Your task to perform on an android device: Go to wifi settings Image 0: 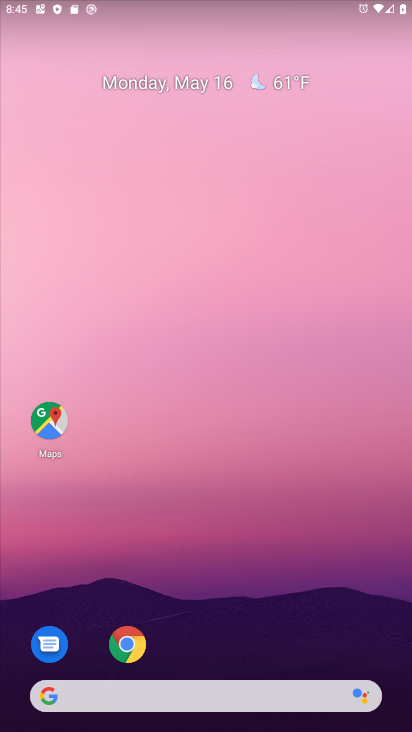
Step 0: drag from (239, 622) to (261, 152)
Your task to perform on an android device: Go to wifi settings Image 1: 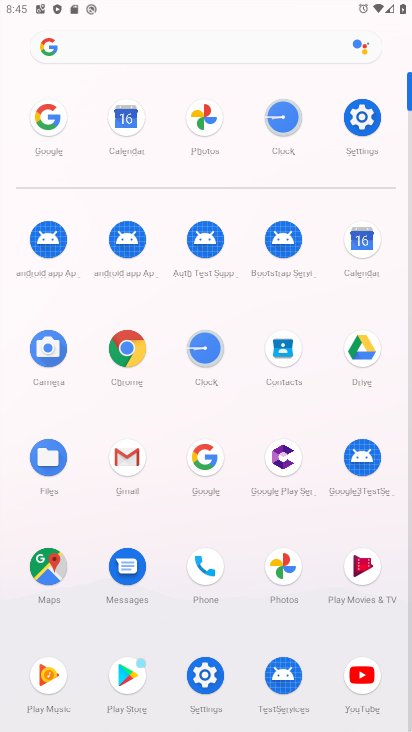
Step 1: click (361, 118)
Your task to perform on an android device: Go to wifi settings Image 2: 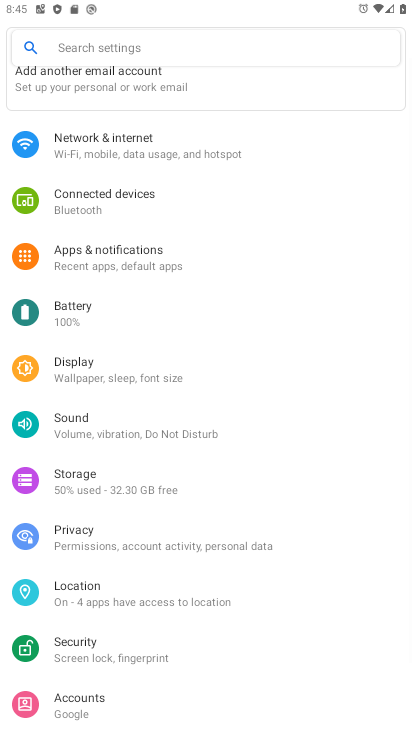
Step 2: click (82, 159)
Your task to perform on an android device: Go to wifi settings Image 3: 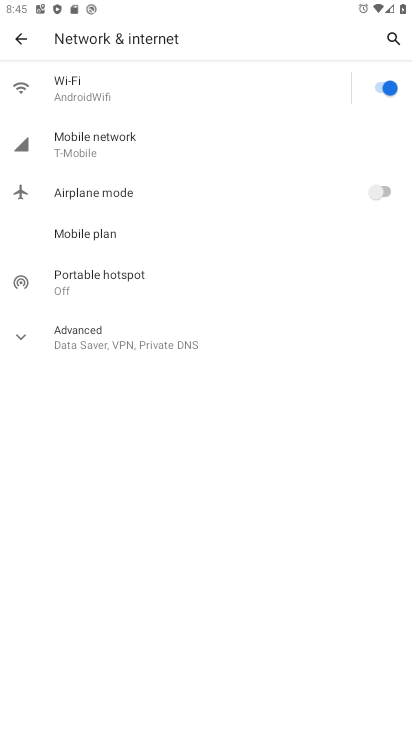
Step 3: click (123, 97)
Your task to perform on an android device: Go to wifi settings Image 4: 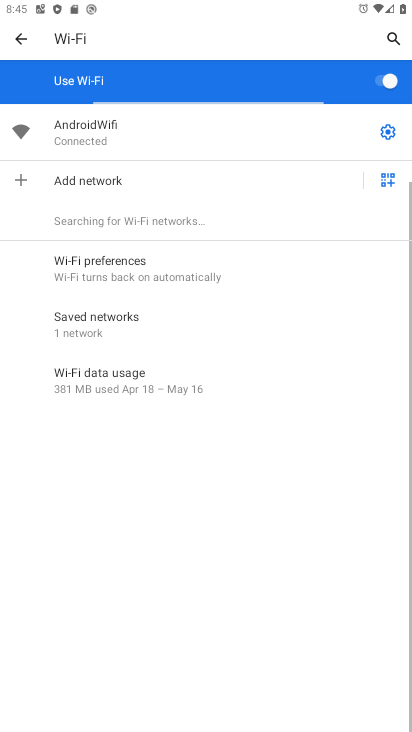
Step 4: click (387, 129)
Your task to perform on an android device: Go to wifi settings Image 5: 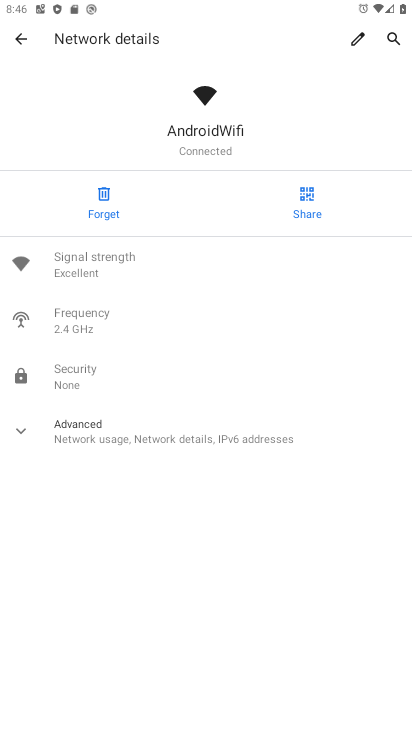
Step 5: task complete